Your task to perform on an android device: Go to CNN.com Image 0: 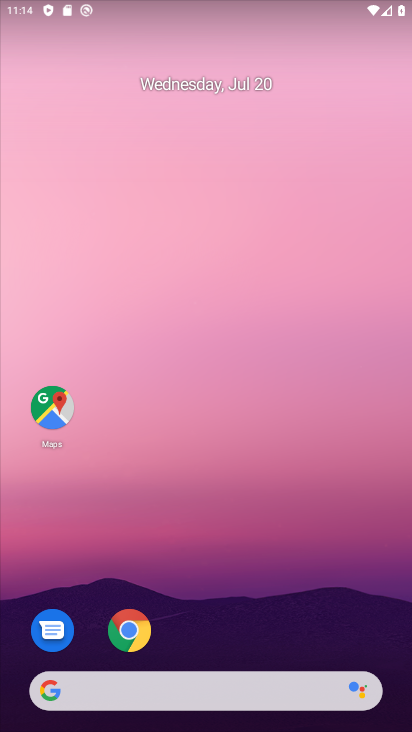
Step 0: click (147, 634)
Your task to perform on an android device: Go to CNN.com Image 1: 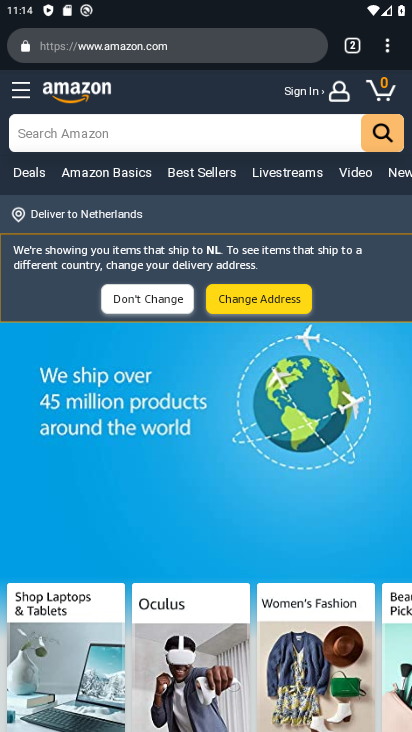
Step 1: click (142, 56)
Your task to perform on an android device: Go to CNN.com Image 2: 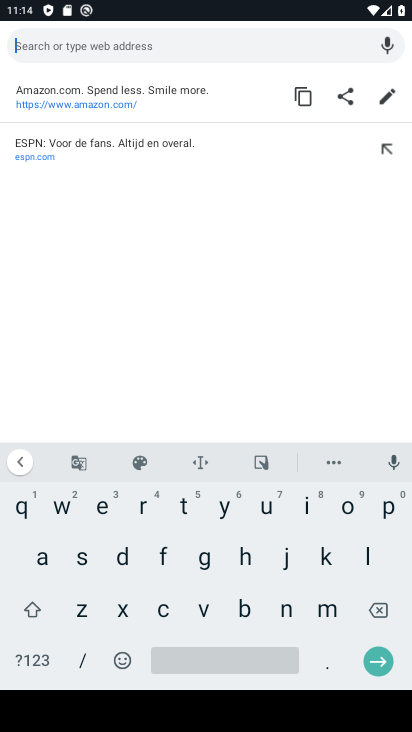
Step 2: click (165, 607)
Your task to perform on an android device: Go to CNN.com Image 3: 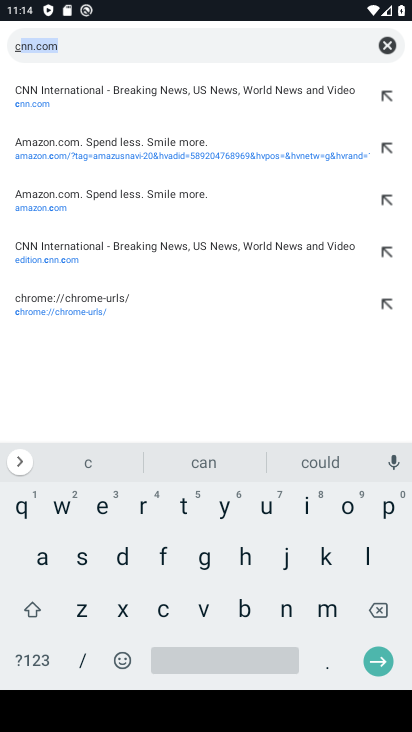
Step 3: click (93, 43)
Your task to perform on an android device: Go to CNN.com Image 4: 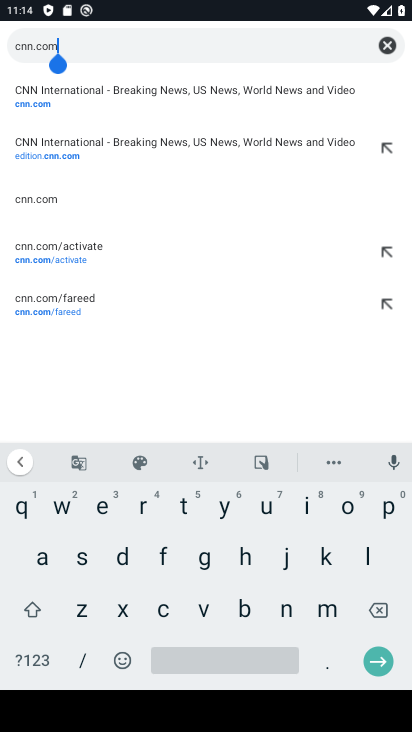
Step 4: click (384, 665)
Your task to perform on an android device: Go to CNN.com Image 5: 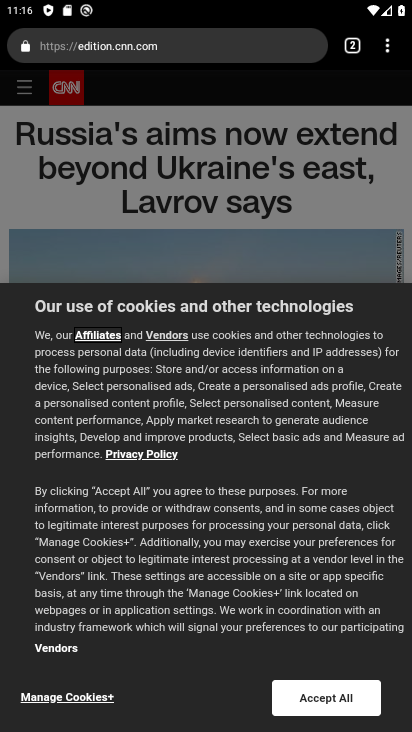
Step 5: task complete